Your task to perform on an android device: Go to eBay Image 0: 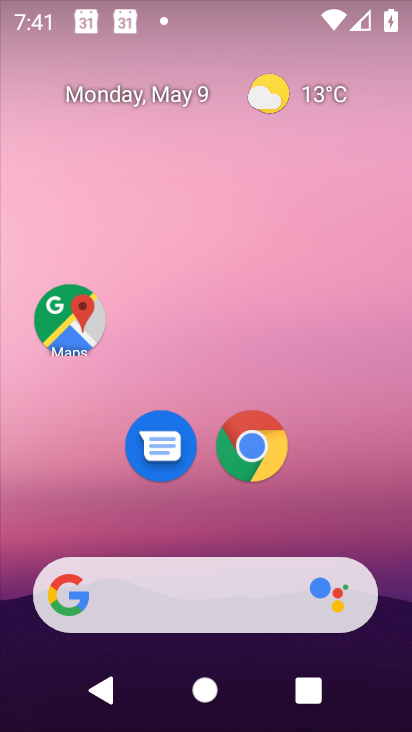
Step 0: click (238, 443)
Your task to perform on an android device: Go to eBay Image 1: 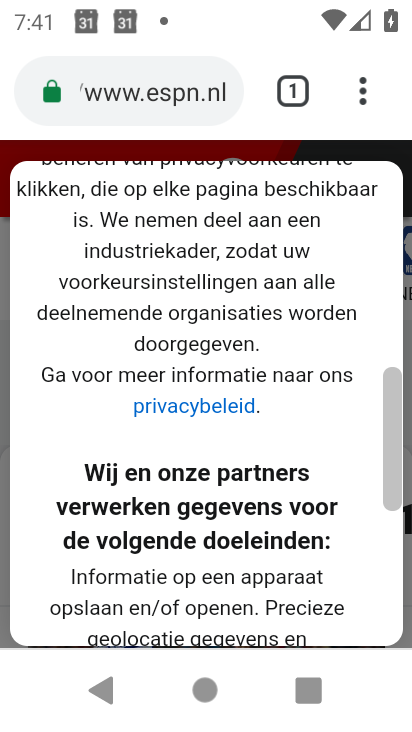
Step 1: click (137, 101)
Your task to perform on an android device: Go to eBay Image 2: 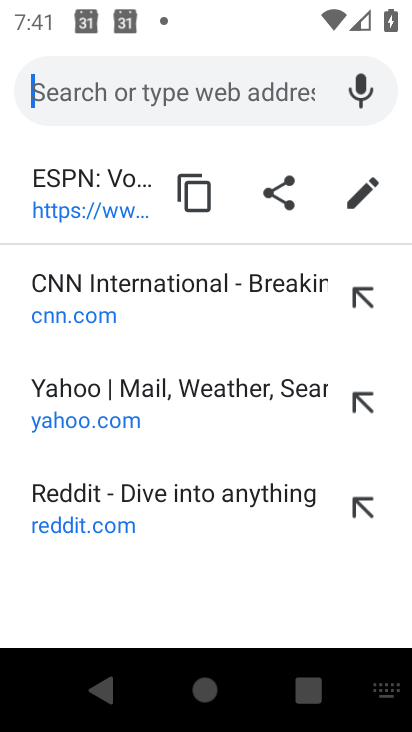
Step 2: type "ebay"
Your task to perform on an android device: Go to eBay Image 3: 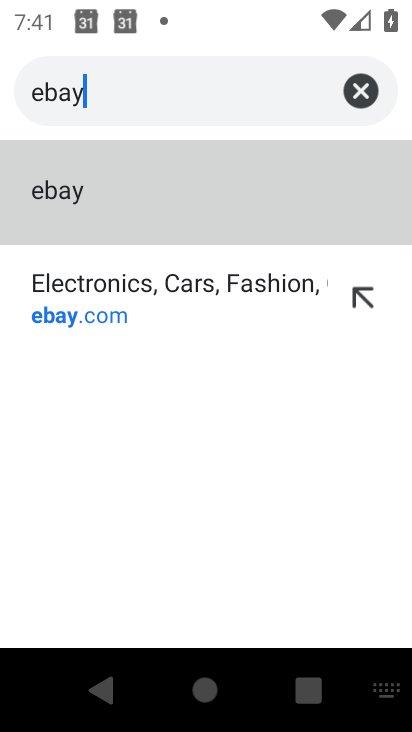
Step 3: click (95, 289)
Your task to perform on an android device: Go to eBay Image 4: 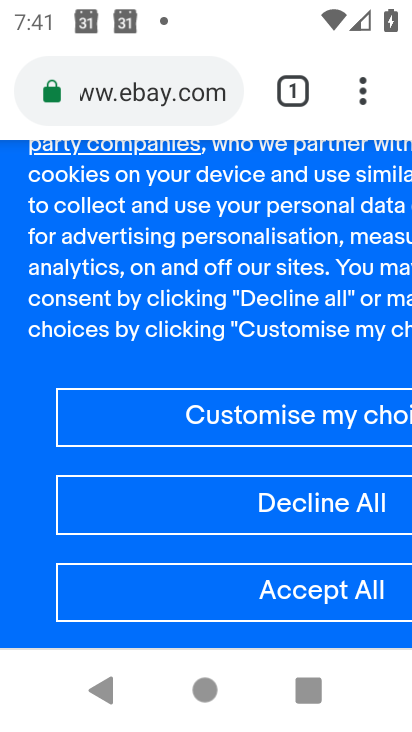
Step 4: task complete